Your task to perform on an android device: change the clock display to show seconds Image 0: 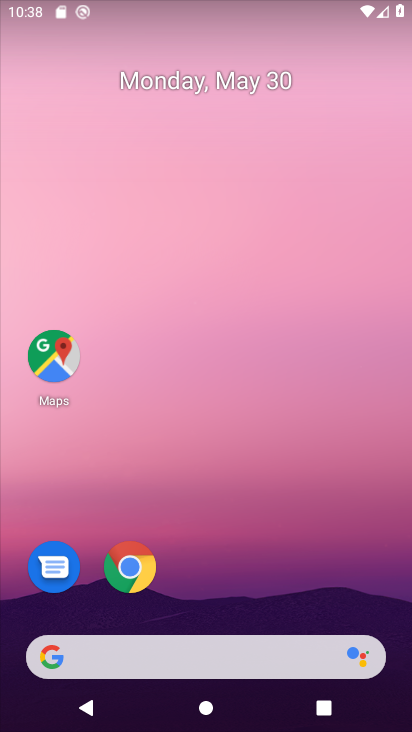
Step 0: drag from (252, 631) to (265, 233)
Your task to perform on an android device: change the clock display to show seconds Image 1: 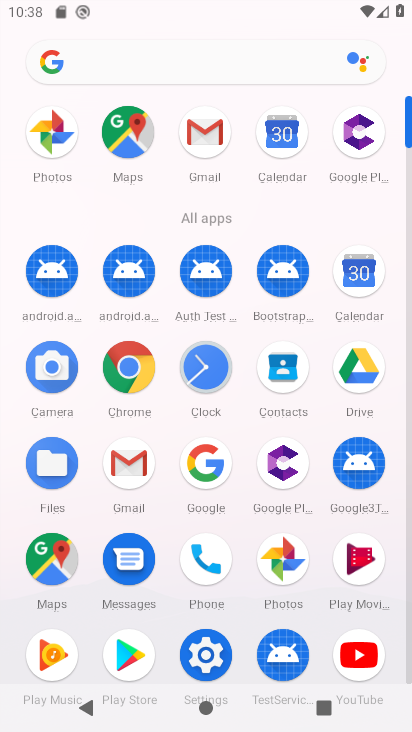
Step 1: click (212, 369)
Your task to perform on an android device: change the clock display to show seconds Image 2: 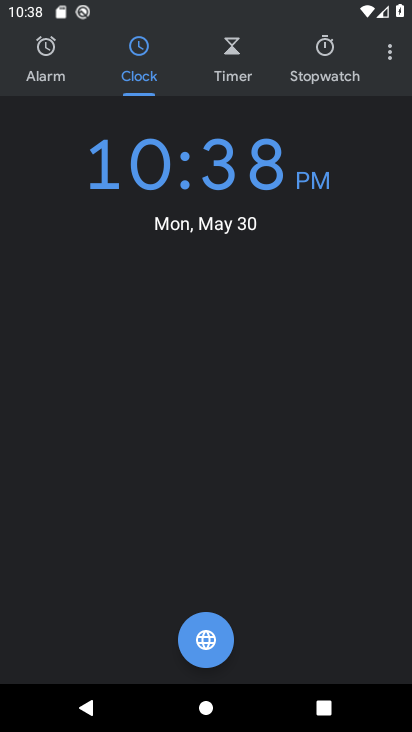
Step 2: click (391, 51)
Your task to perform on an android device: change the clock display to show seconds Image 3: 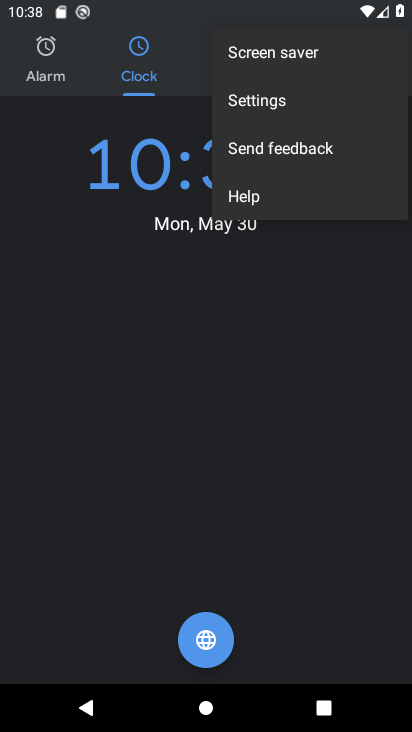
Step 3: click (254, 101)
Your task to perform on an android device: change the clock display to show seconds Image 4: 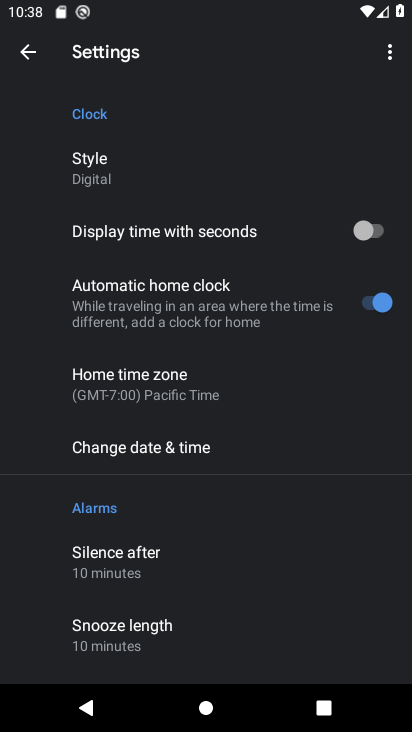
Step 4: click (372, 235)
Your task to perform on an android device: change the clock display to show seconds Image 5: 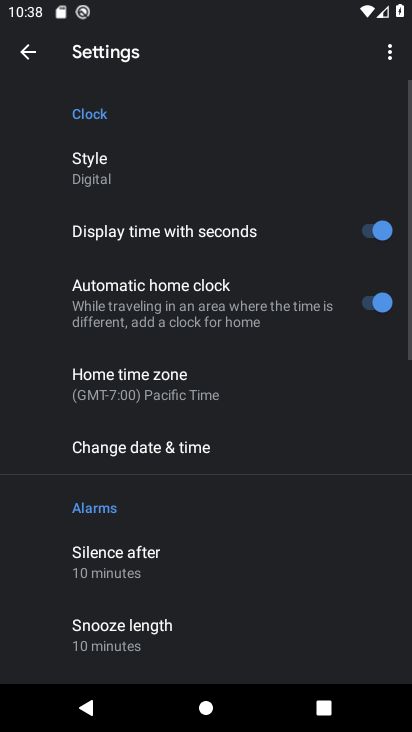
Step 5: task complete